Your task to perform on an android device: change the clock display to analog Image 0: 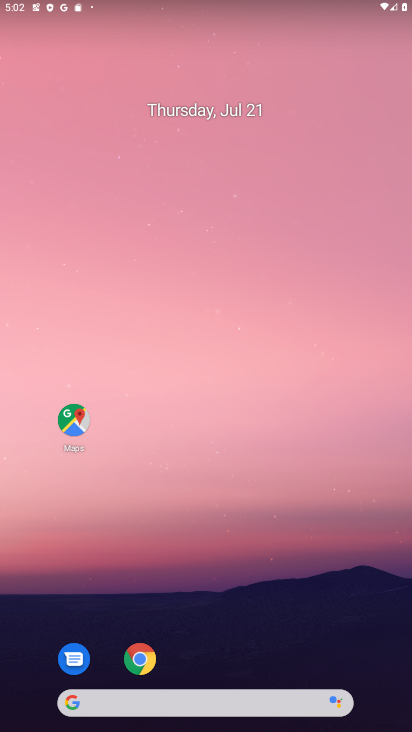
Step 0: click (354, 490)
Your task to perform on an android device: change the clock display to analog Image 1: 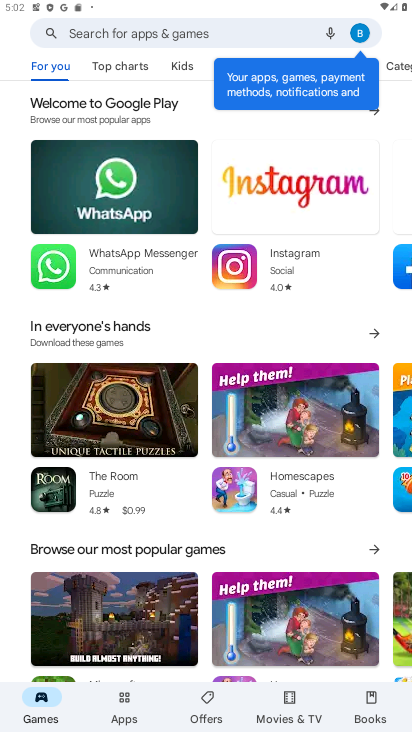
Step 1: press home button
Your task to perform on an android device: change the clock display to analog Image 2: 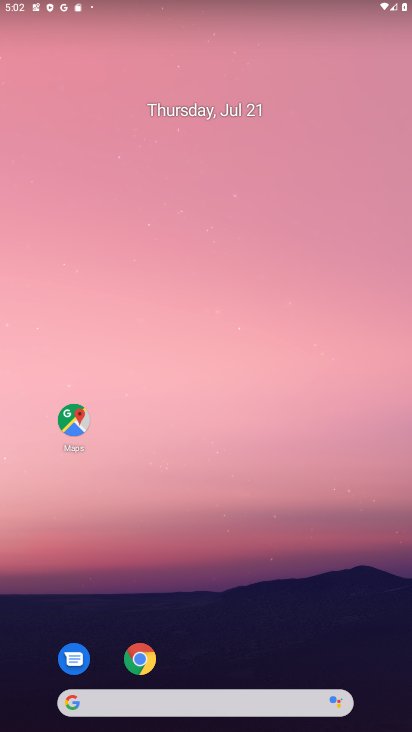
Step 2: drag from (270, 563) to (229, 29)
Your task to perform on an android device: change the clock display to analog Image 3: 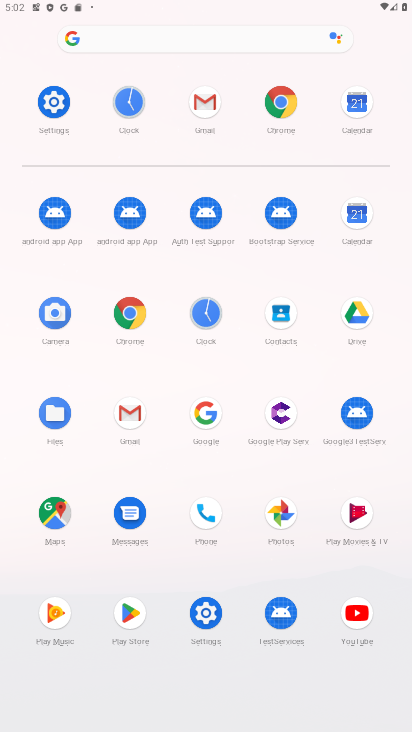
Step 3: click (132, 100)
Your task to perform on an android device: change the clock display to analog Image 4: 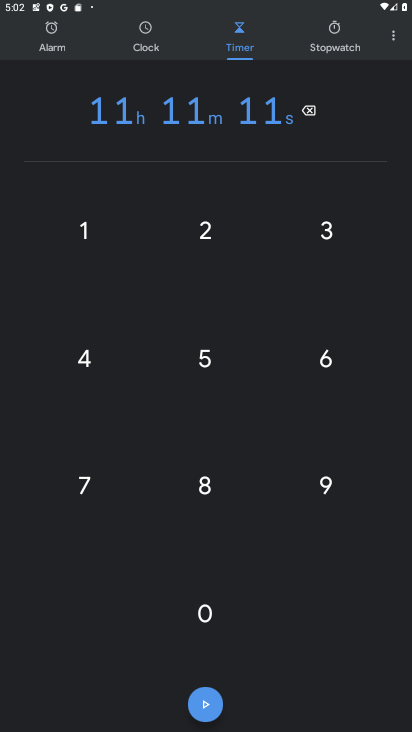
Step 4: click (388, 38)
Your task to perform on an android device: change the clock display to analog Image 5: 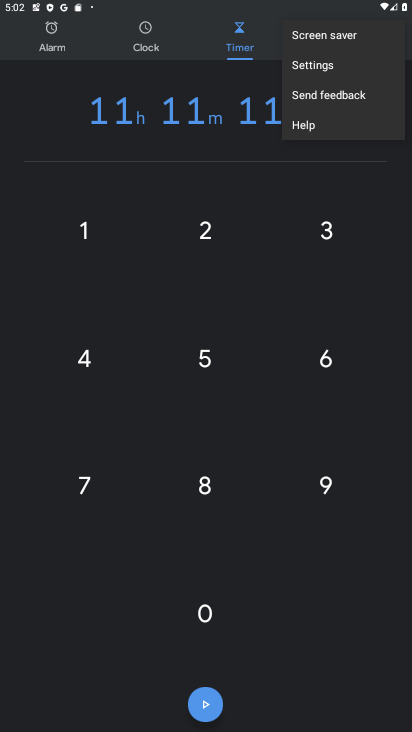
Step 5: click (319, 64)
Your task to perform on an android device: change the clock display to analog Image 6: 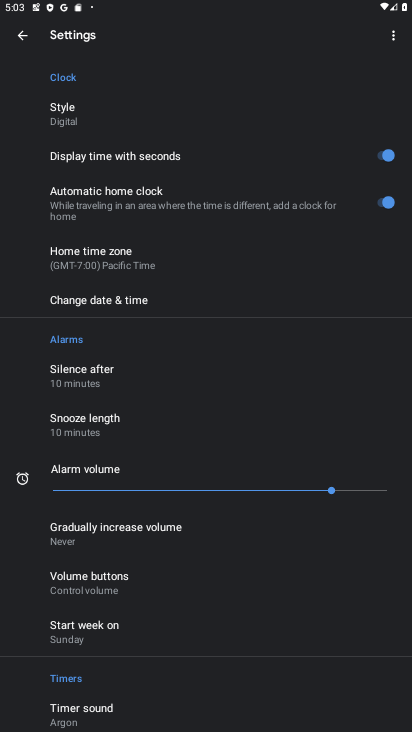
Step 6: click (71, 111)
Your task to perform on an android device: change the clock display to analog Image 7: 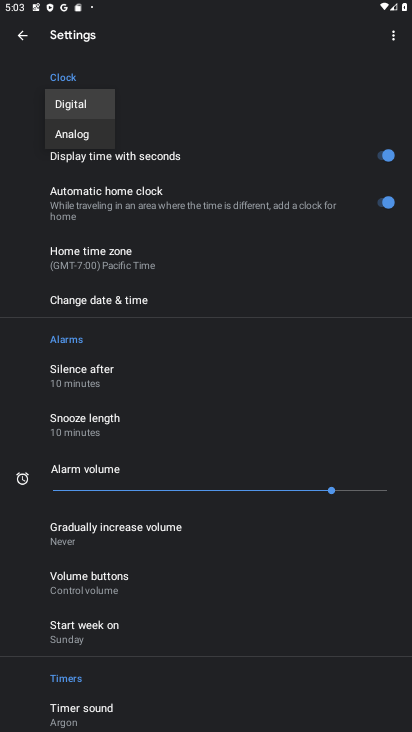
Step 7: click (73, 135)
Your task to perform on an android device: change the clock display to analog Image 8: 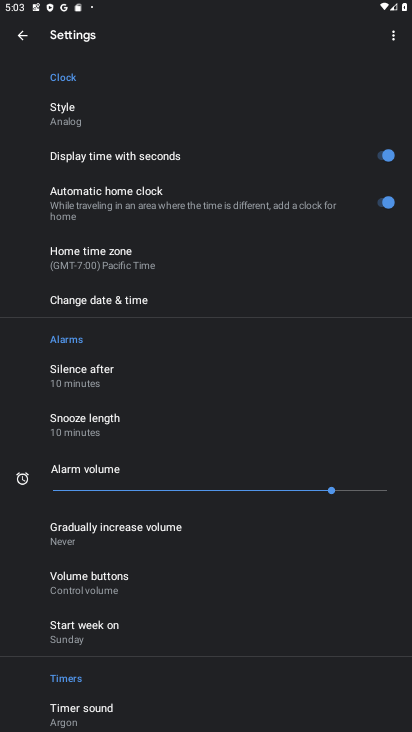
Step 8: task complete